Your task to perform on an android device: Go to notification settings Image 0: 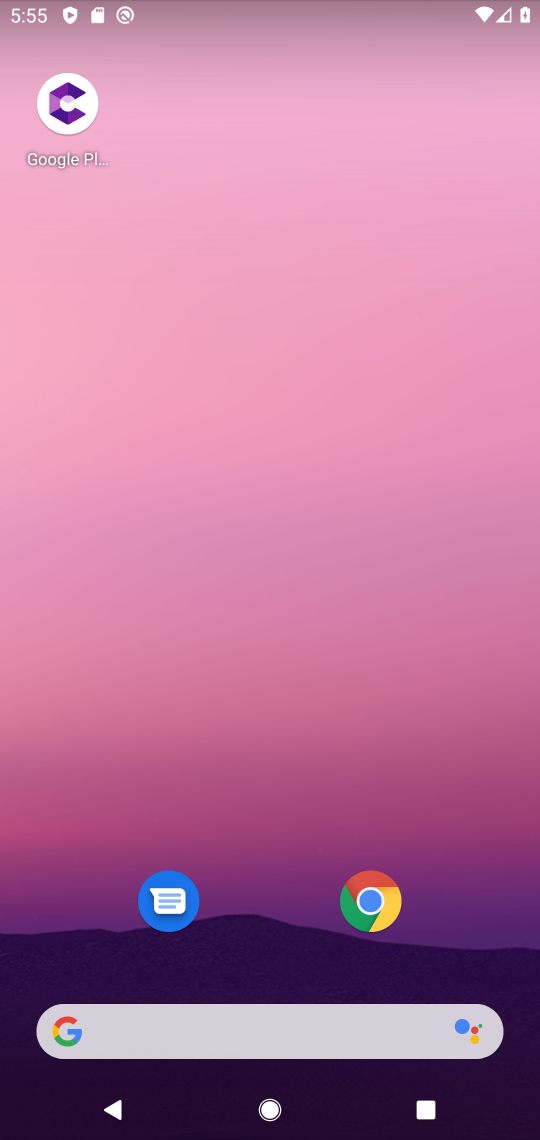
Step 0: drag from (366, 1083) to (443, 283)
Your task to perform on an android device: Go to notification settings Image 1: 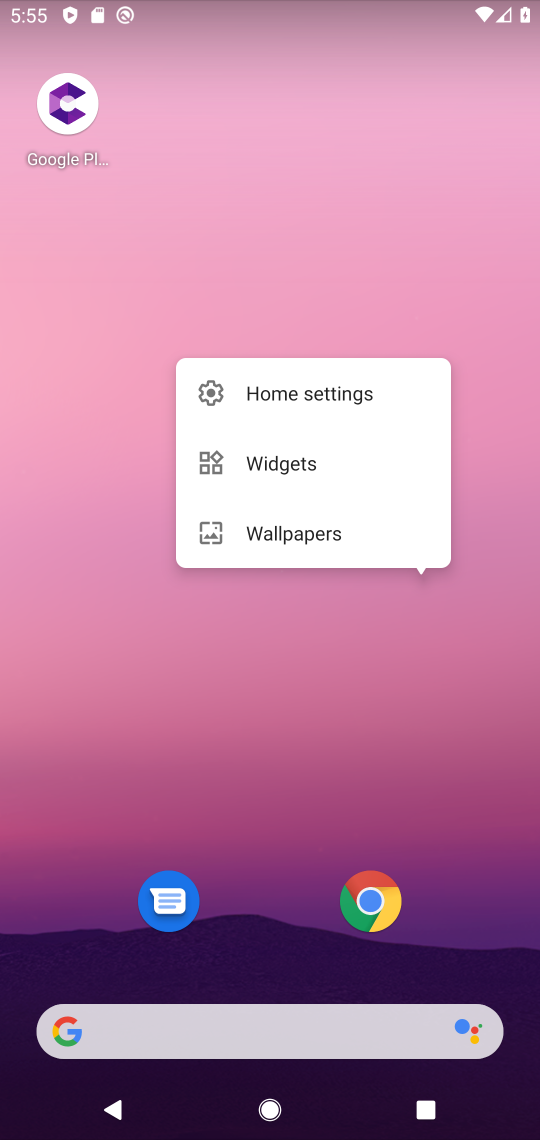
Step 1: drag from (359, 1113) to (434, 452)
Your task to perform on an android device: Go to notification settings Image 2: 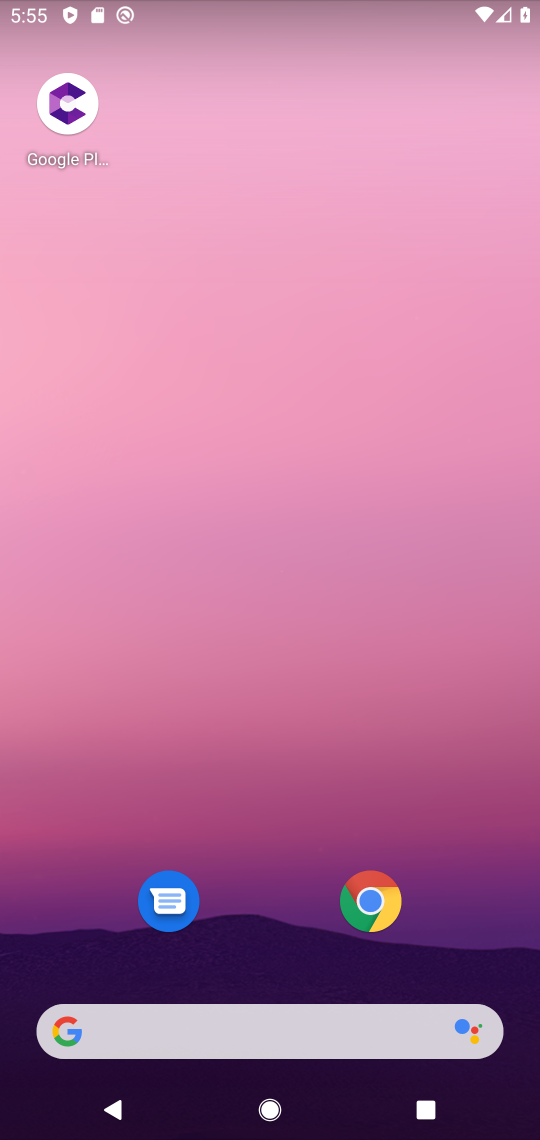
Step 2: drag from (325, 1095) to (312, 296)
Your task to perform on an android device: Go to notification settings Image 3: 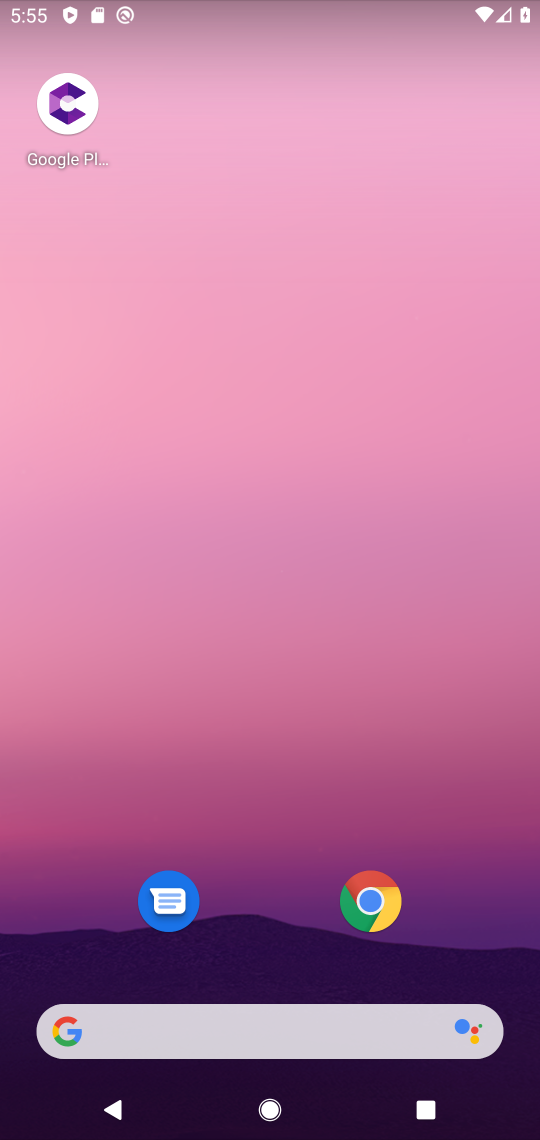
Step 3: drag from (329, 1008) to (310, 100)
Your task to perform on an android device: Go to notification settings Image 4: 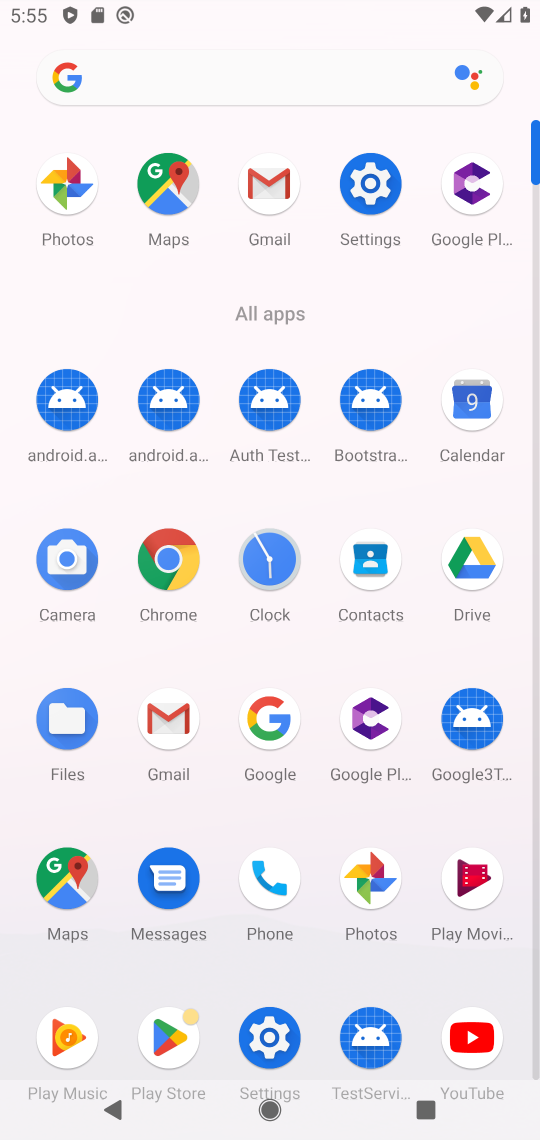
Step 4: click (379, 192)
Your task to perform on an android device: Go to notification settings Image 5: 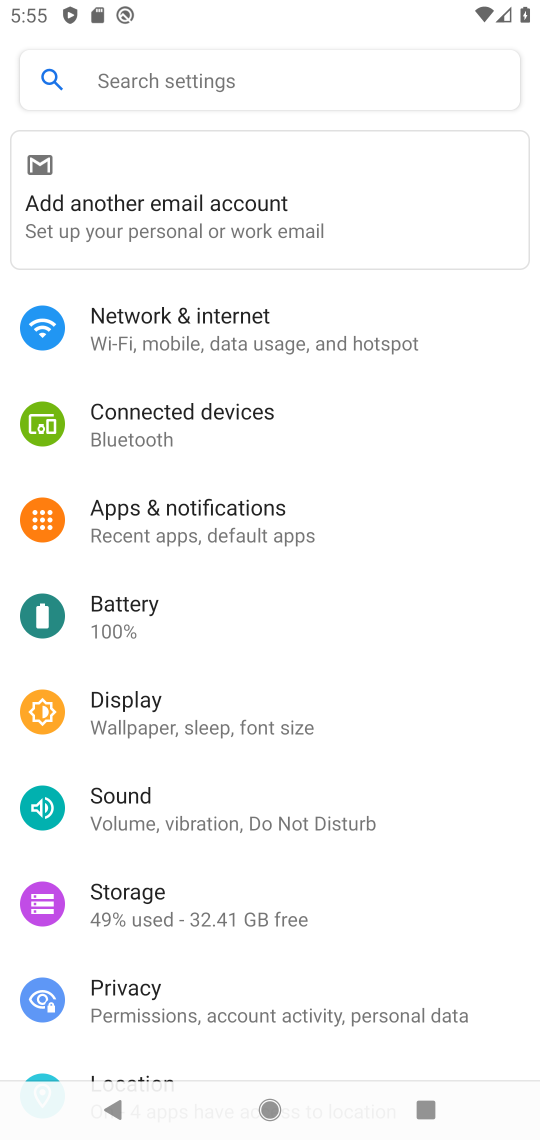
Step 5: click (227, 524)
Your task to perform on an android device: Go to notification settings Image 6: 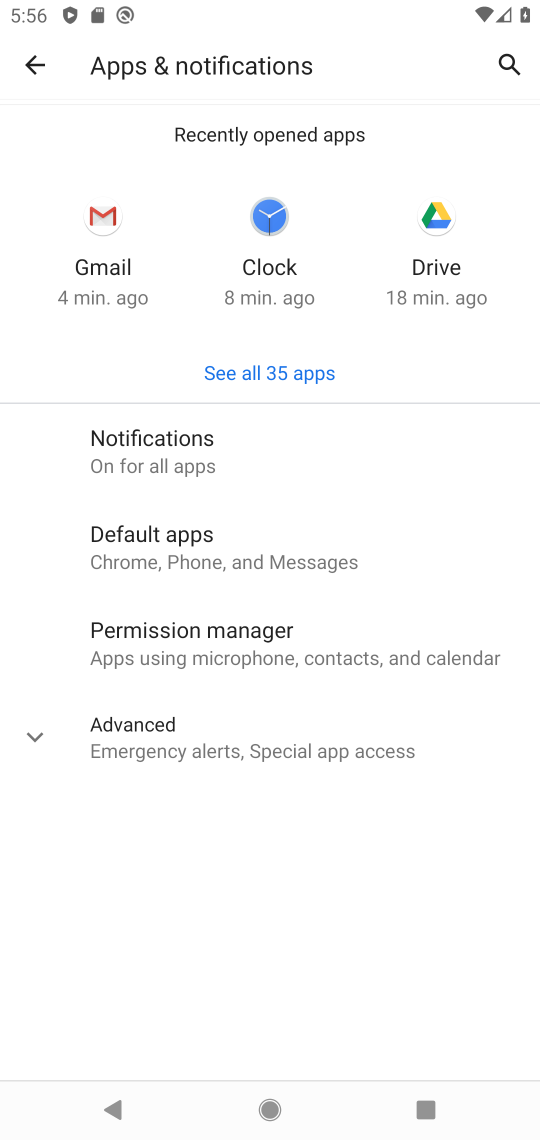
Step 6: task complete